Your task to perform on an android device: Toggle the flashlight Image 0: 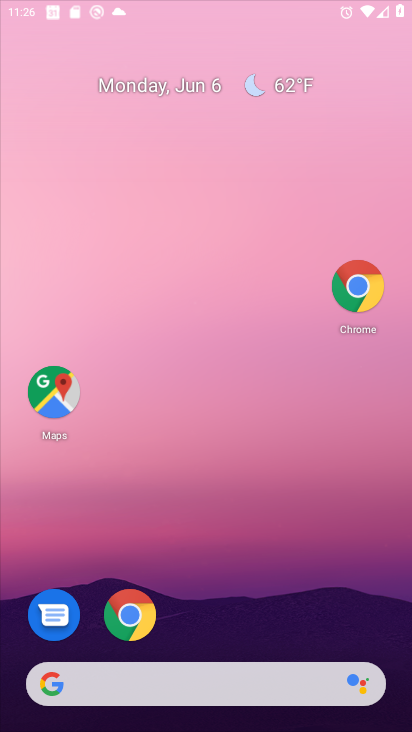
Step 0: press back button
Your task to perform on an android device: Toggle the flashlight Image 1: 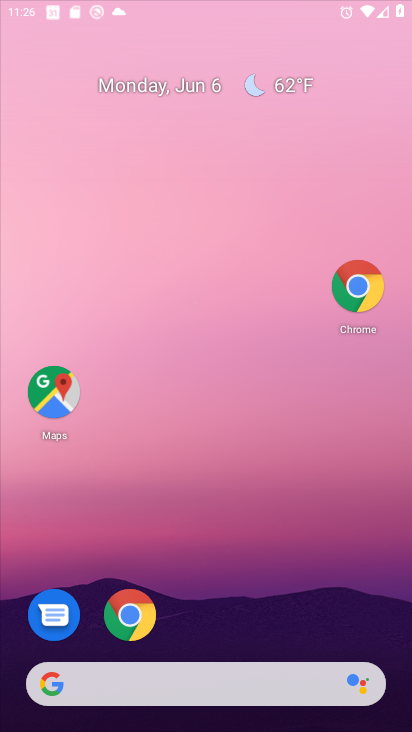
Step 1: click (218, 239)
Your task to perform on an android device: Toggle the flashlight Image 2: 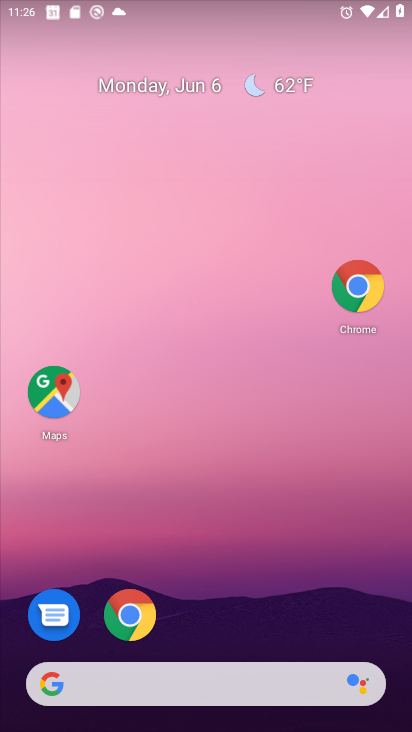
Step 2: task complete